Your task to perform on an android device: Open calendar and show me the second week of next month Image 0: 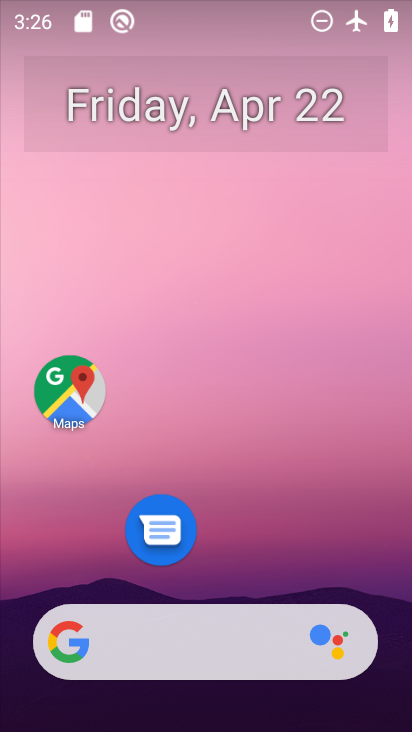
Step 0: drag from (242, 531) to (140, 60)
Your task to perform on an android device: Open calendar and show me the second week of next month Image 1: 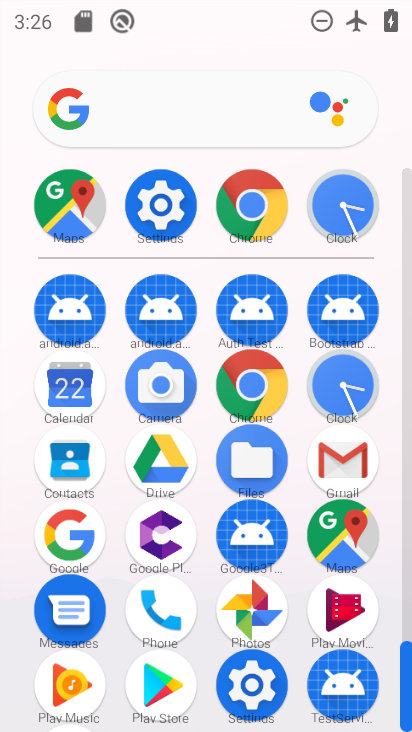
Step 1: click (57, 381)
Your task to perform on an android device: Open calendar and show me the second week of next month Image 2: 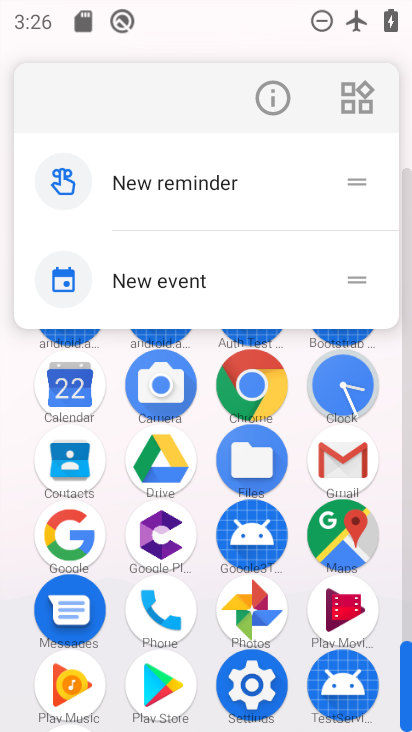
Step 2: click (62, 396)
Your task to perform on an android device: Open calendar and show me the second week of next month Image 3: 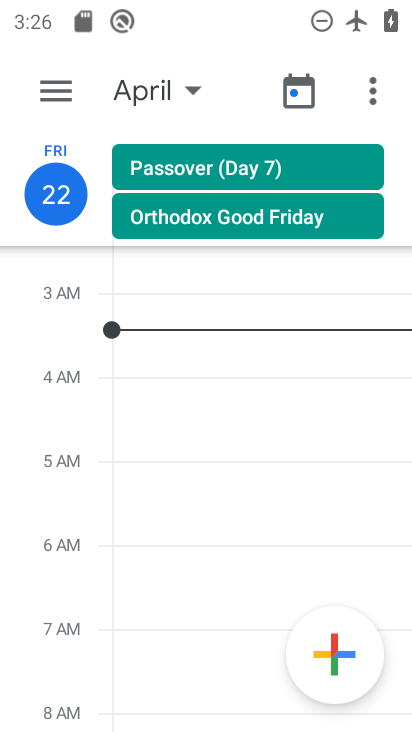
Step 3: click (191, 83)
Your task to perform on an android device: Open calendar and show me the second week of next month Image 4: 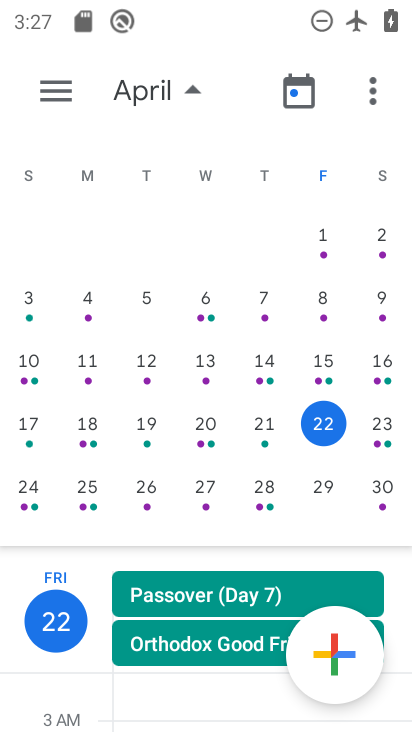
Step 4: click (44, 90)
Your task to perform on an android device: Open calendar and show me the second week of next month Image 5: 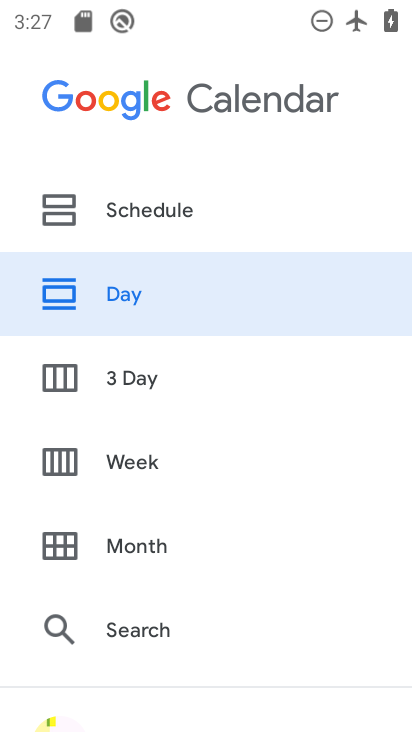
Step 5: click (147, 464)
Your task to perform on an android device: Open calendar and show me the second week of next month Image 6: 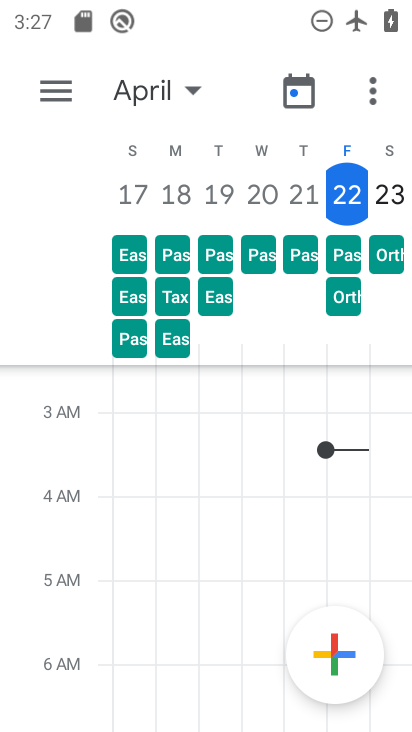
Step 6: click (193, 86)
Your task to perform on an android device: Open calendar and show me the second week of next month Image 7: 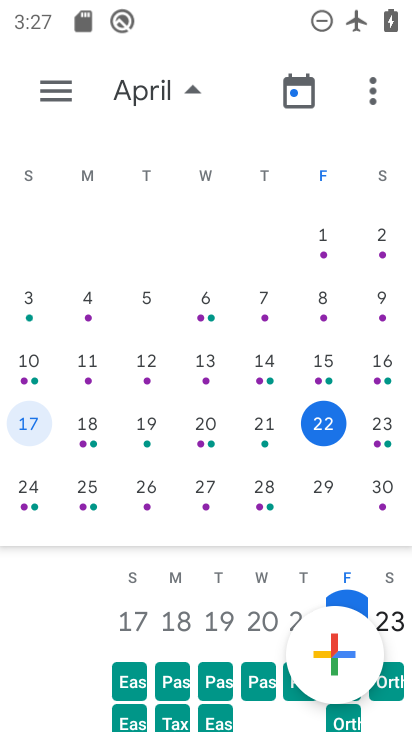
Step 7: drag from (352, 385) to (12, 394)
Your task to perform on an android device: Open calendar and show me the second week of next month Image 8: 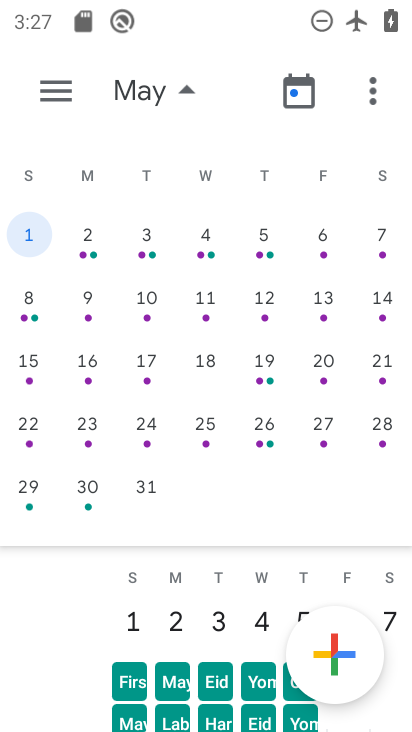
Step 8: click (89, 292)
Your task to perform on an android device: Open calendar and show me the second week of next month Image 9: 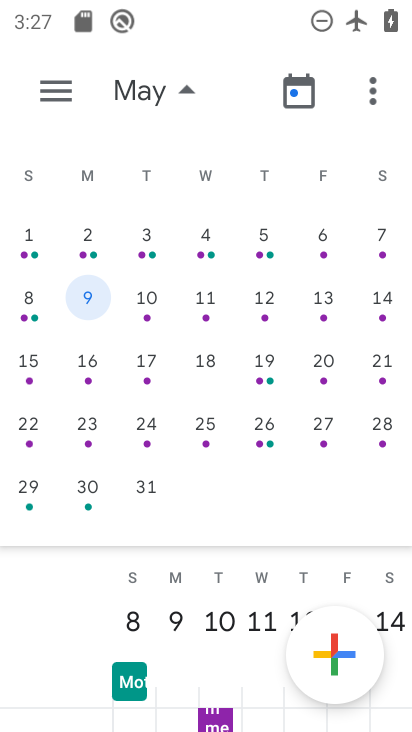
Step 9: task complete